Your task to perform on an android device: Search for the best rated kitchen reno kits on Lowes.com Image 0: 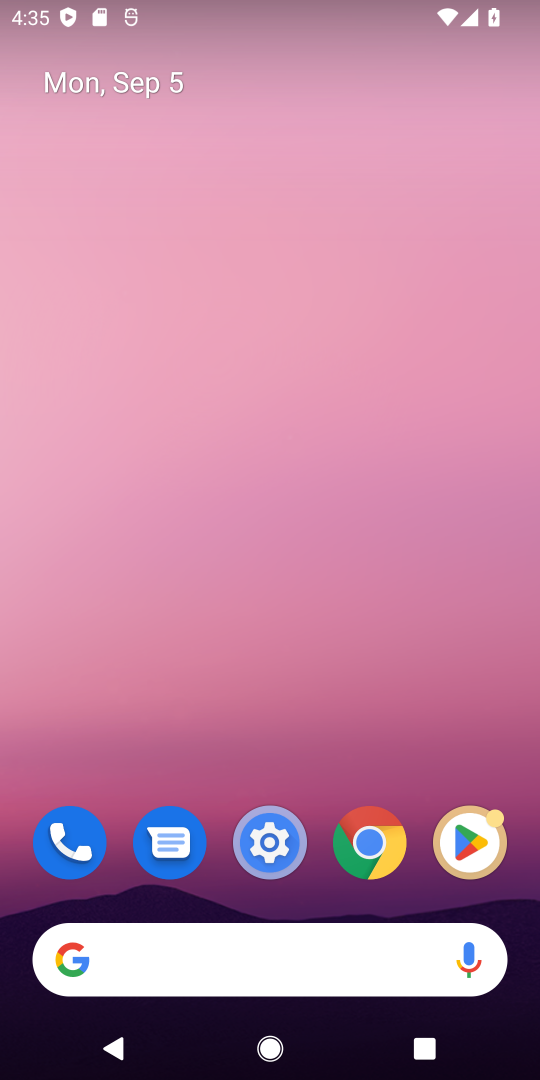
Step 0: click (374, 839)
Your task to perform on an android device: Search for the best rated kitchen reno kits on Lowes.com Image 1: 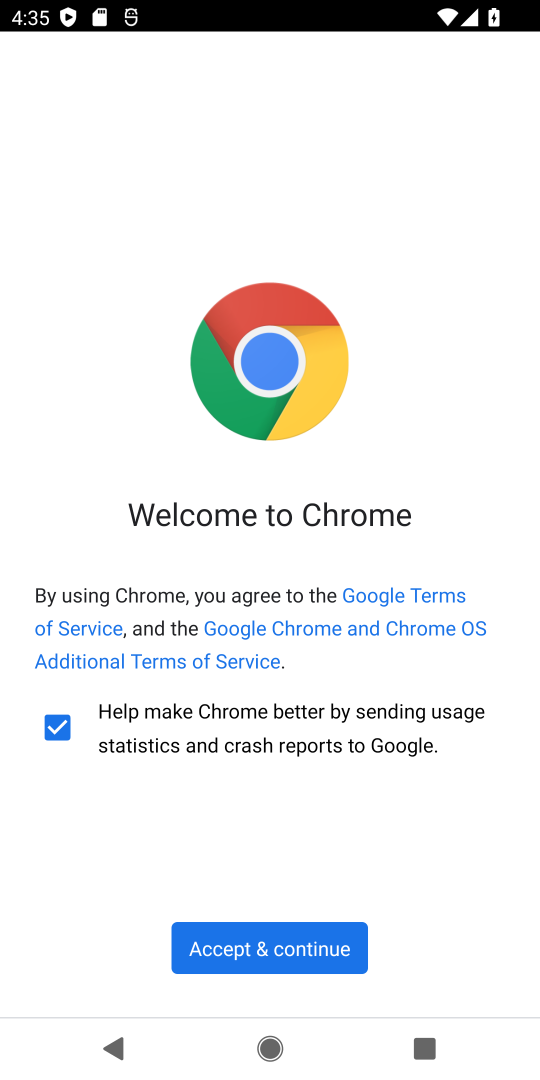
Step 1: click (274, 943)
Your task to perform on an android device: Search for the best rated kitchen reno kits on Lowes.com Image 2: 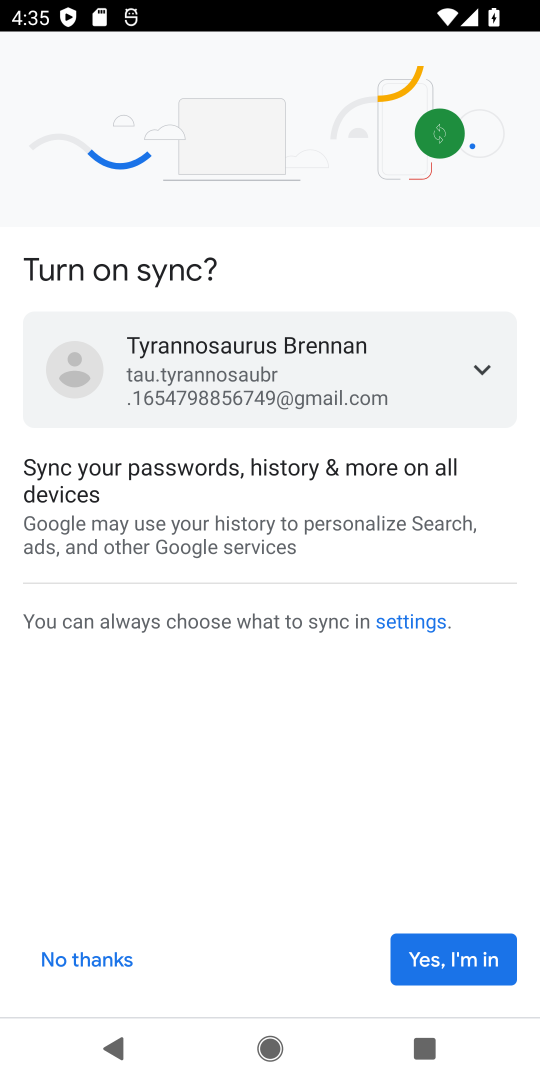
Step 2: click (442, 948)
Your task to perform on an android device: Search for the best rated kitchen reno kits on Lowes.com Image 3: 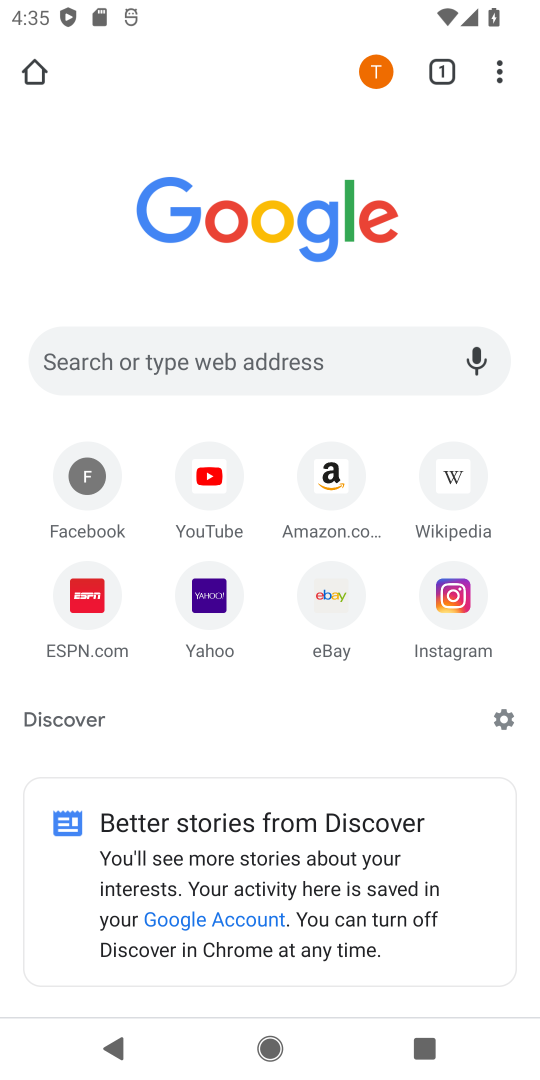
Step 3: click (317, 357)
Your task to perform on an android device: Search for the best rated kitchen reno kits on Lowes.com Image 4: 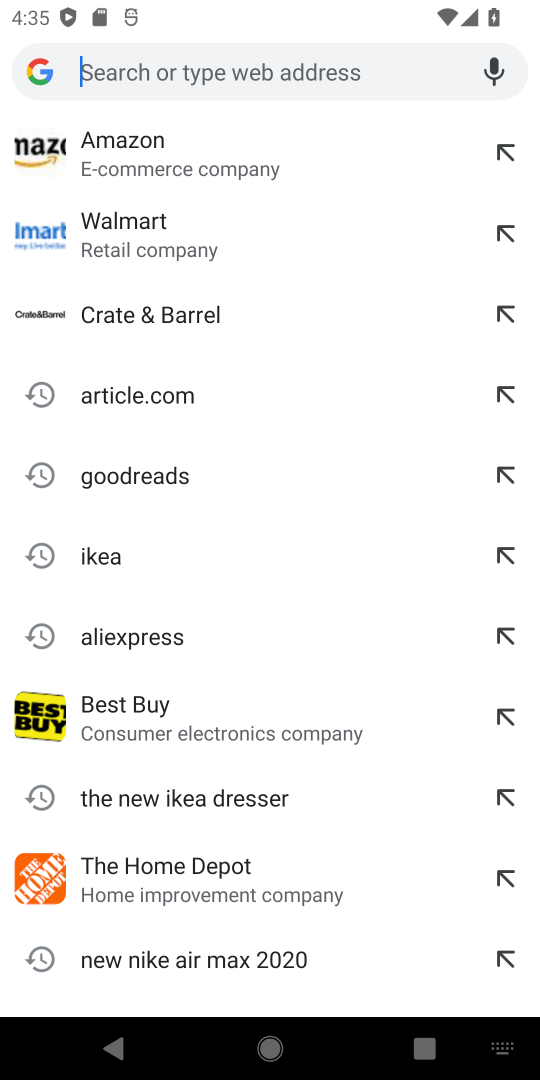
Step 4: type "Lowes.com"
Your task to perform on an android device: Search for the best rated kitchen reno kits on Lowes.com Image 5: 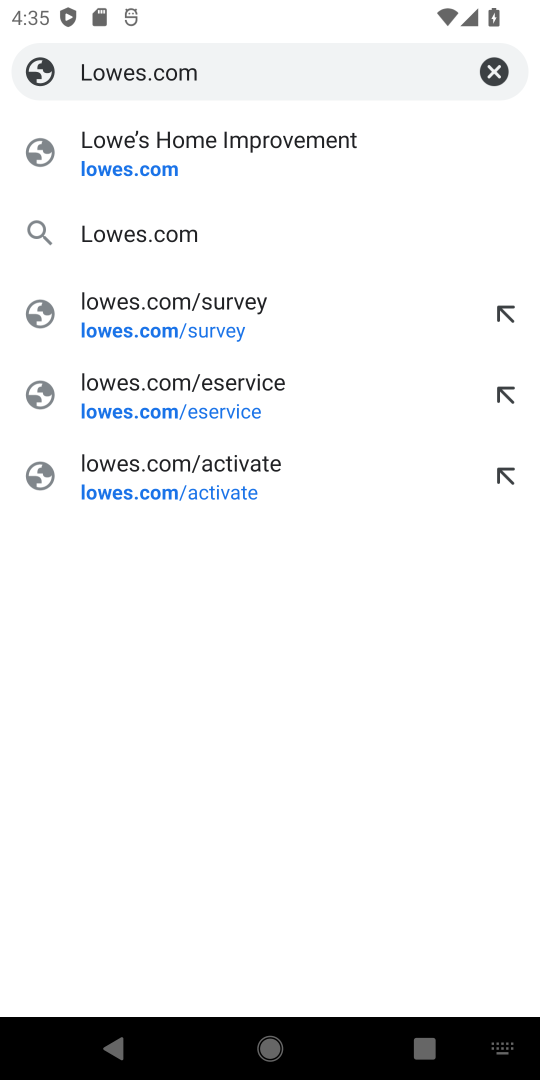
Step 5: click (161, 237)
Your task to perform on an android device: Search for the best rated kitchen reno kits on Lowes.com Image 6: 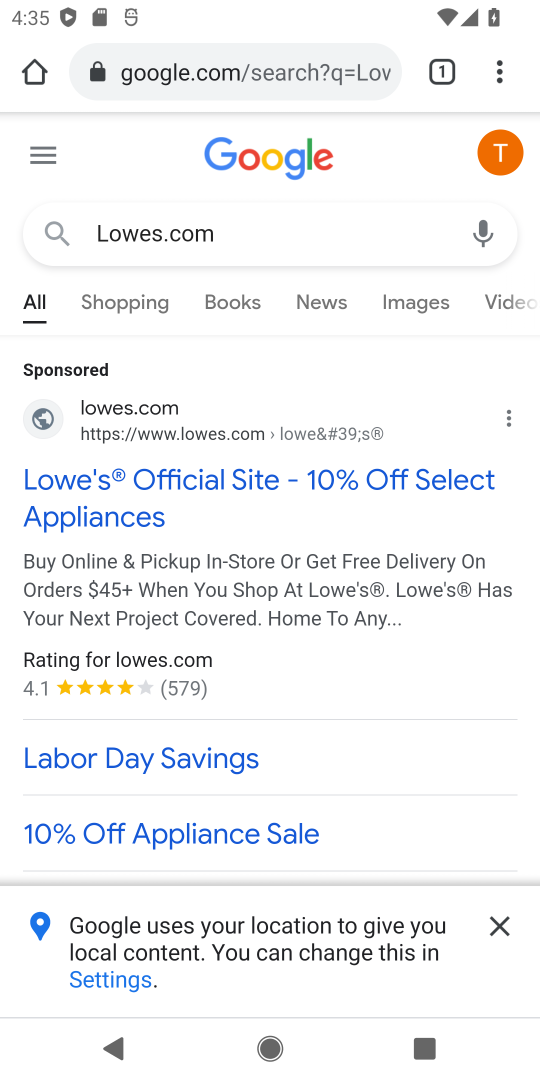
Step 6: drag from (341, 756) to (370, 408)
Your task to perform on an android device: Search for the best rated kitchen reno kits on Lowes.com Image 7: 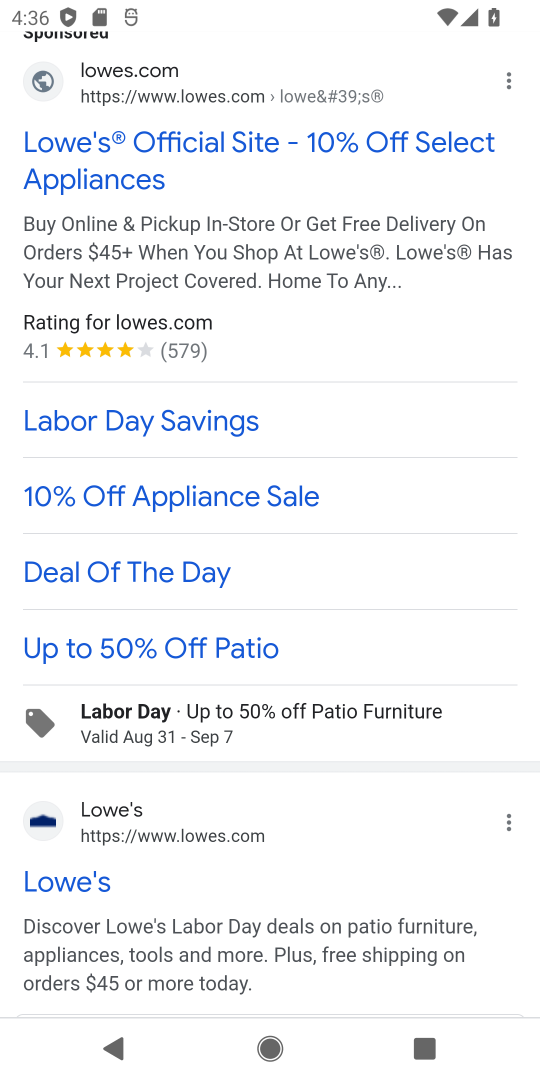
Step 7: click (144, 889)
Your task to perform on an android device: Search for the best rated kitchen reno kits on Lowes.com Image 8: 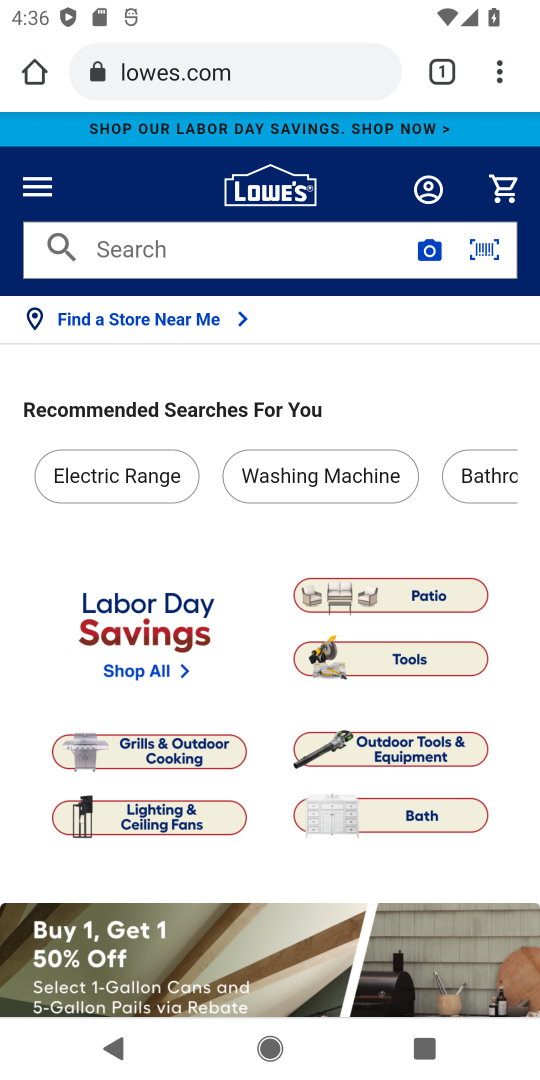
Step 8: click (216, 236)
Your task to perform on an android device: Search for the best rated kitchen reno kits on Lowes.com Image 9: 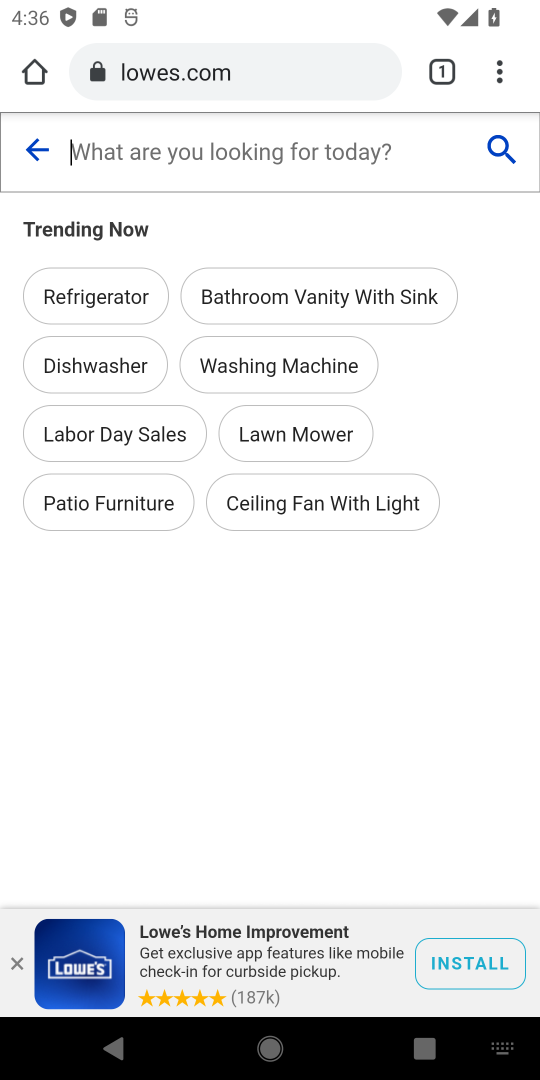
Step 9: type "best rated kitchen reno kits"
Your task to perform on an android device: Search for the best rated kitchen reno kits on Lowes.com Image 10: 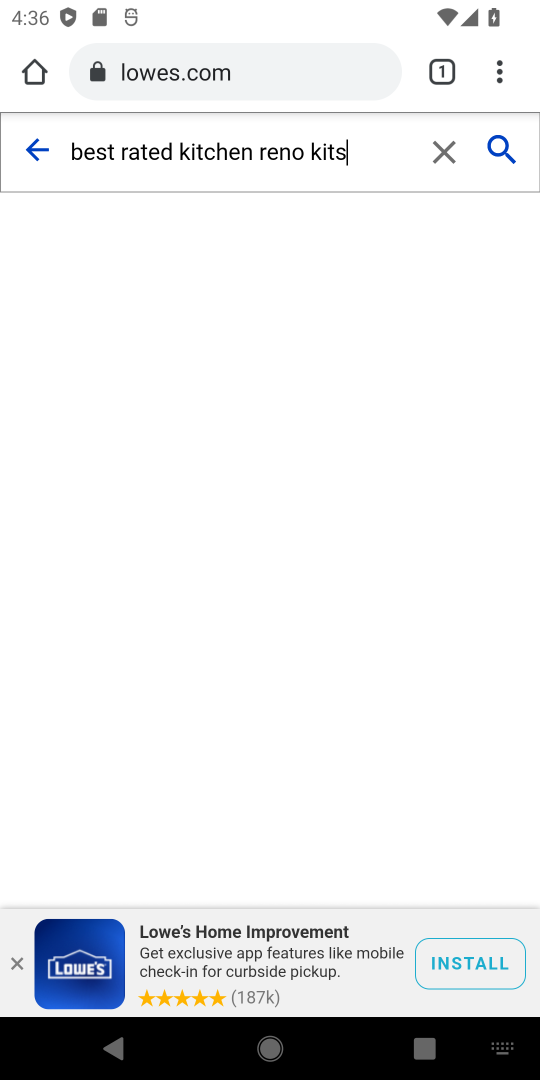
Step 10: click (505, 141)
Your task to perform on an android device: Search for the best rated kitchen reno kits on Lowes.com Image 11: 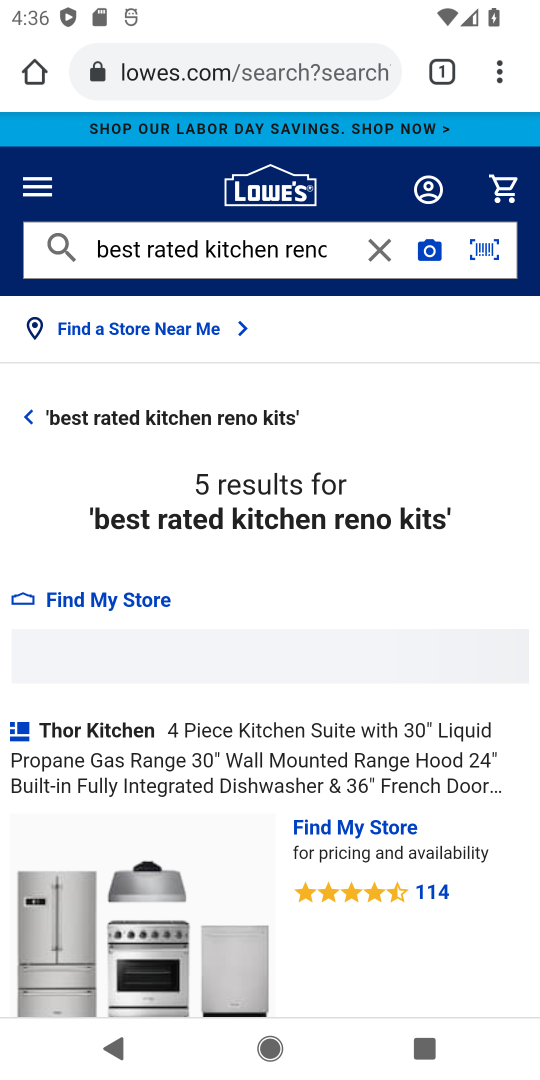
Step 11: task complete